Your task to perform on an android device: Open internet settings Image 0: 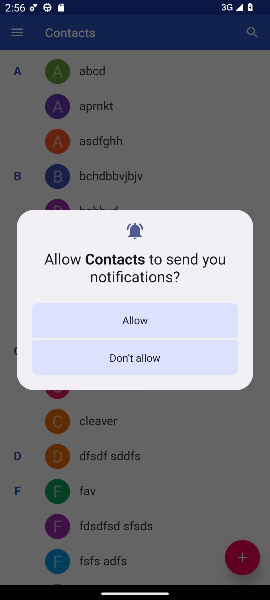
Step 0: press home button
Your task to perform on an android device: Open internet settings Image 1: 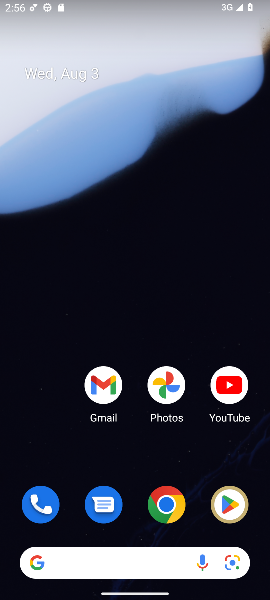
Step 1: drag from (198, 458) to (166, 11)
Your task to perform on an android device: Open internet settings Image 2: 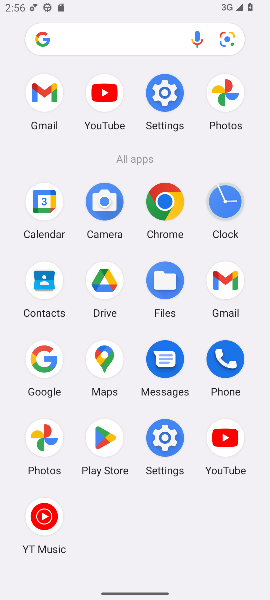
Step 2: click (175, 88)
Your task to perform on an android device: Open internet settings Image 3: 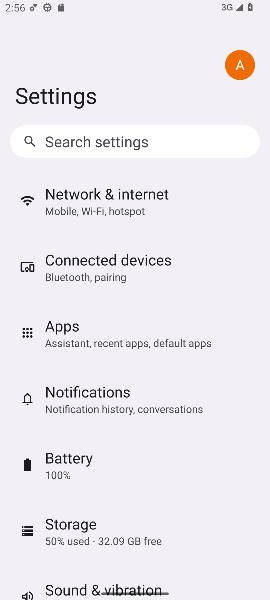
Step 3: click (86, 195)
Your task to perform on an android device: Open internet settings Image 4: 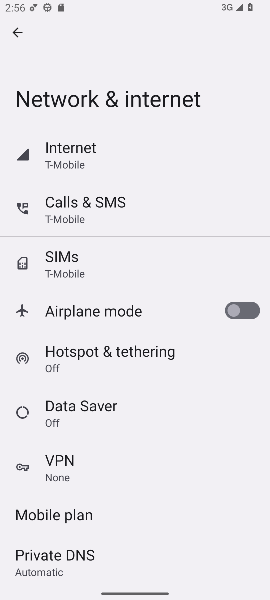
Step 4: click (78, 149)
Your task to perform on an android device: Open internet settings Image 5: 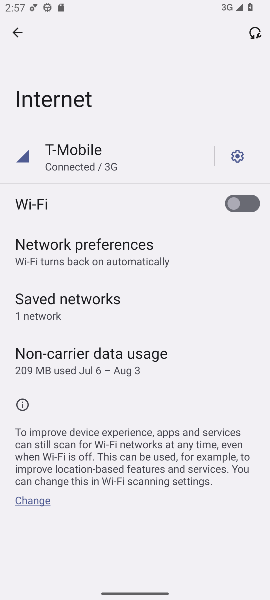
Step 5: click (41, 499)
Your task to perform on an android device: Open internet settings Image 6: 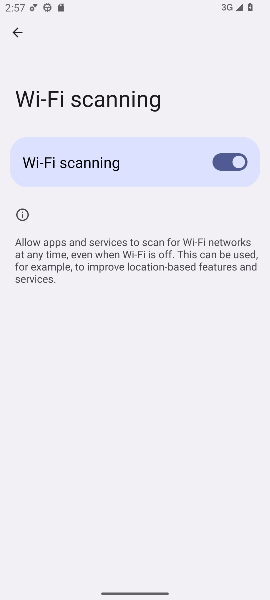
Step 6: click (26, 25)
Your task to perform on an android device: Open internet settings Image 7: 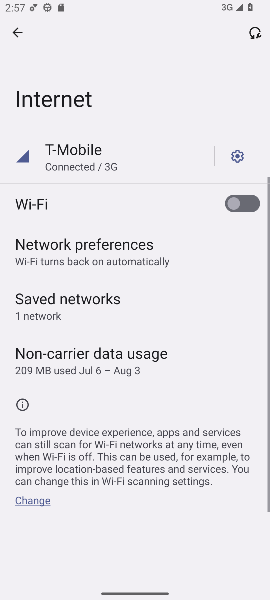
Step 7: click (234, 155)
Your task to perform on an android device: Open internet settings Image 8: 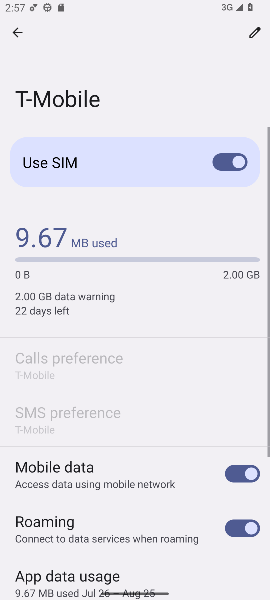
Step 8: task complete